Your task to perform on an android device: Go to ESPN.com Image 0: 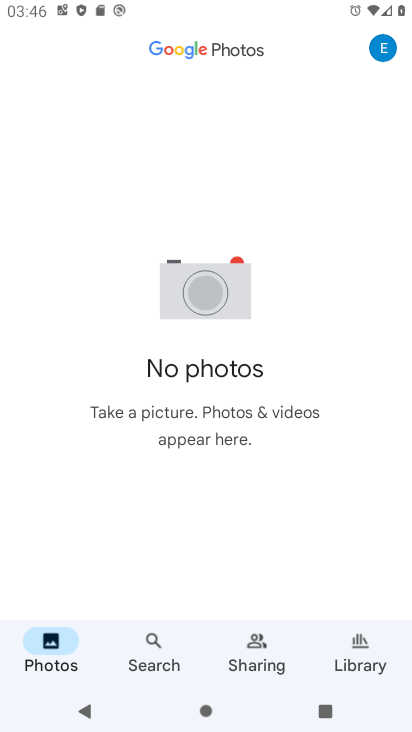
Step 0: press home button
Your task to perform on an android device: Go to ESPN.com Image 1: 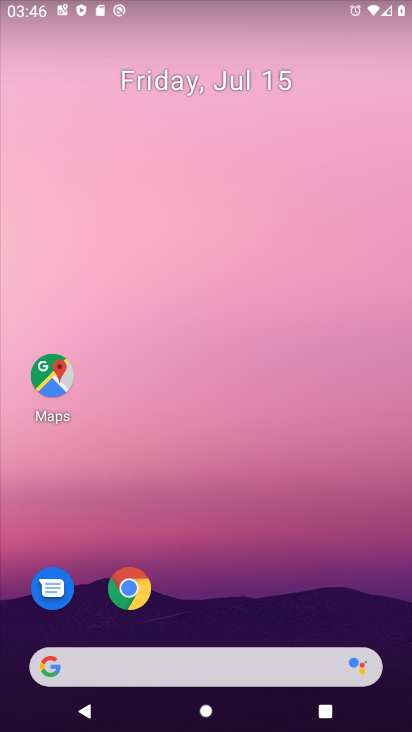
Step 1: click (126, 590)
Your task to perform on an android device: Go to ESPN.com Image 2: 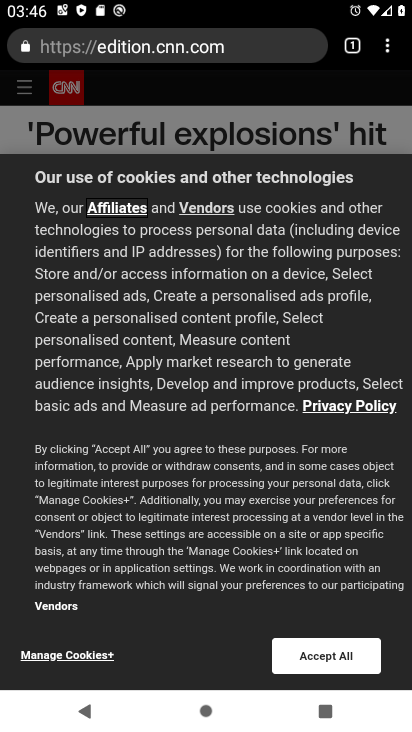
Step 2: click (247, 42)
Your task to perform on an android device: Go to ESPN.com Image 3: 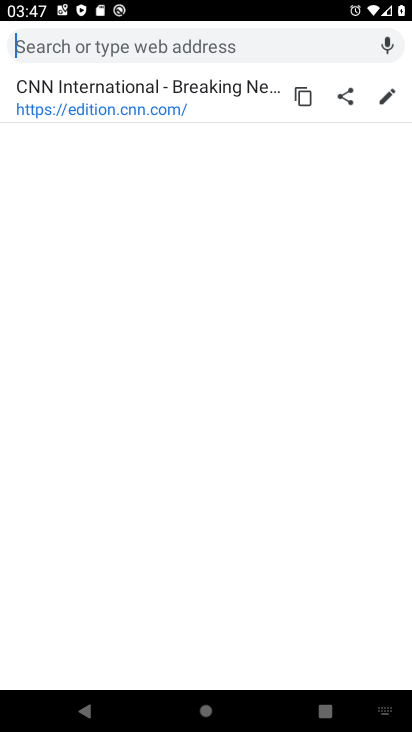
Step 3: type "ESPN.com"
Your task to perform on an android device: Go to ESPN.com Image 4: 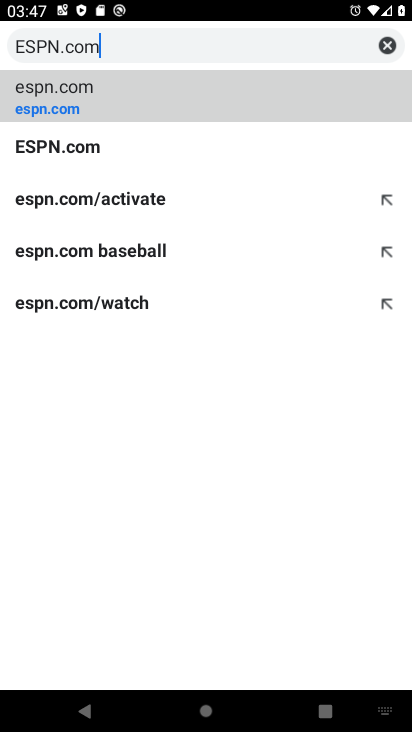
Step 4: click (82, 149)
Your task to perform on an android device: Go to ESPN.com Image 5: 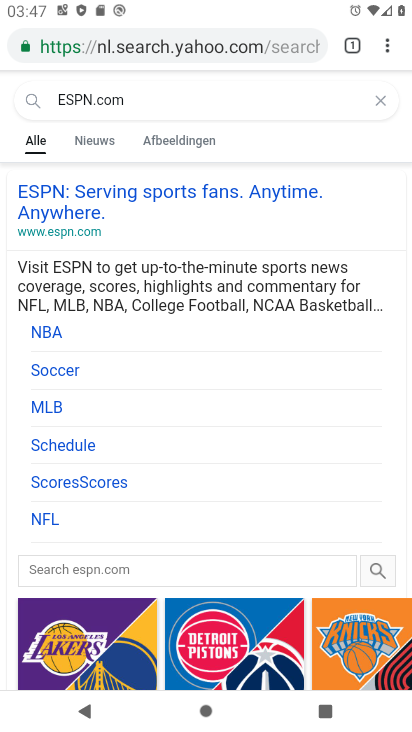
Step 5: click (77, 223)
Your task to perform on an android device: Go to ESPN.com Image 6: 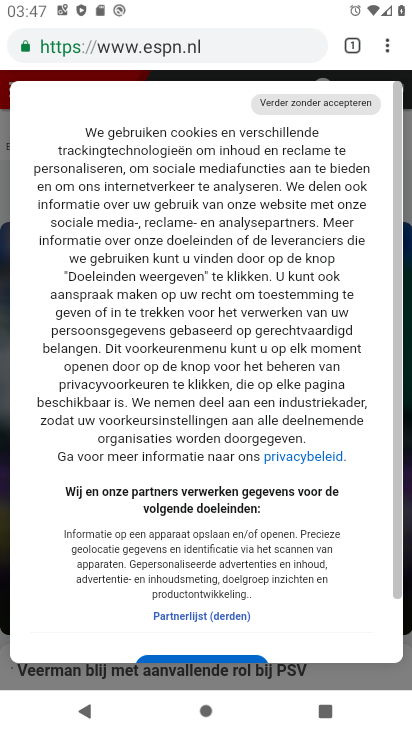
Step 6: task complete